Your task to perform on an android device: Open the Play Movies app and select the watchlist tab. Image 0: 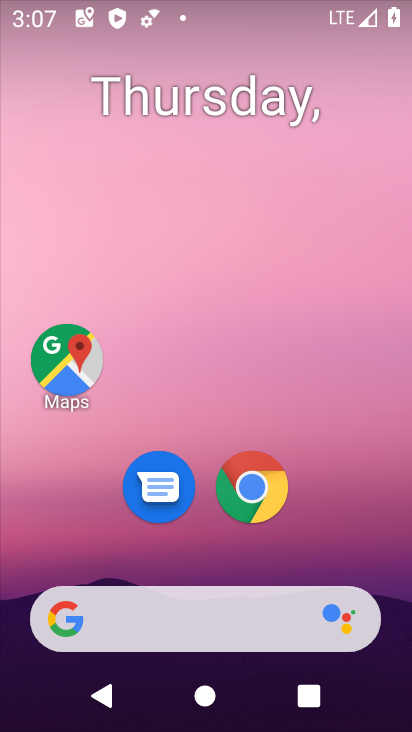
Step 0: drag from (357, 551) to (361, 240)
Your task to perform on an android device: Open the Play Movies app and select the watchlist tab. Image 1: 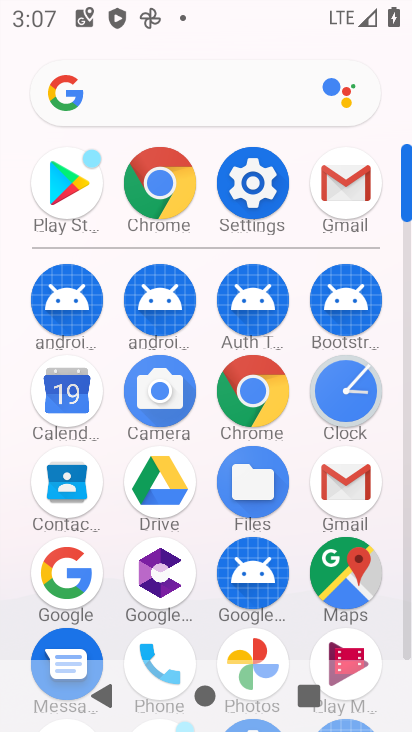
Step 1: drag from (394, 633) to (370, 368)
Your task to perform on an android device: Open the Play Movies app and select the watchlist tab. Image 2: 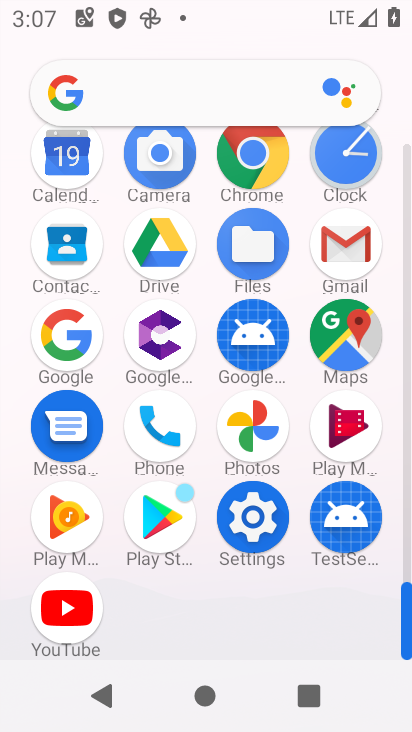
Step 2: drag from (379, 622) to (400, 432)
Your task to perform on an android device: Open the Play Movies app and select the watchlist tab. Image 3: 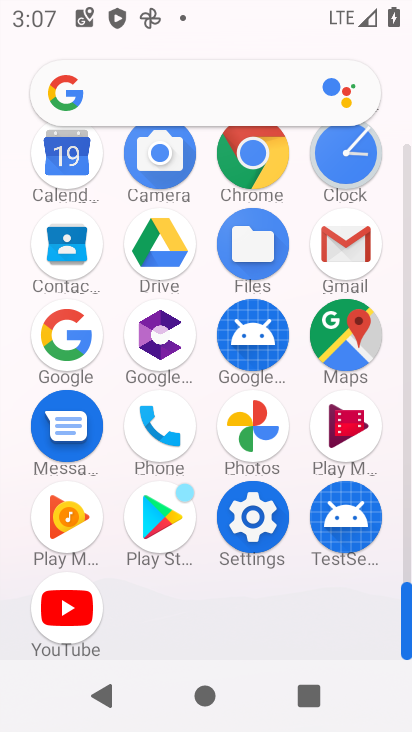
Step 3: click (350, 408)
Your task to perform on an android device: Open the Play Movies app and select the watchlist tab. Image 4: 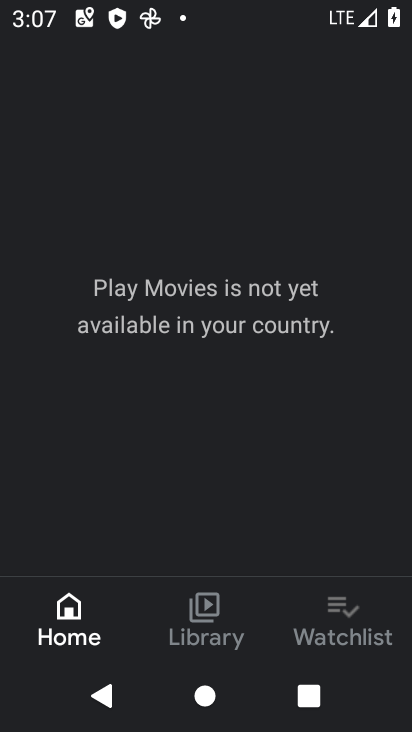
Step 4: click (315, 621)
Your task to perform on an android device: Open the Play Movies app and select the watchlist tab. Image 5: 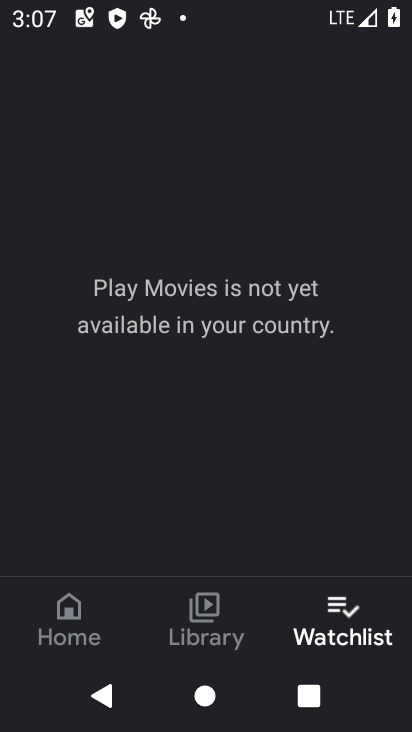
Step 5: task complete